Your task to perform on an android device: Open eBay Image 0: 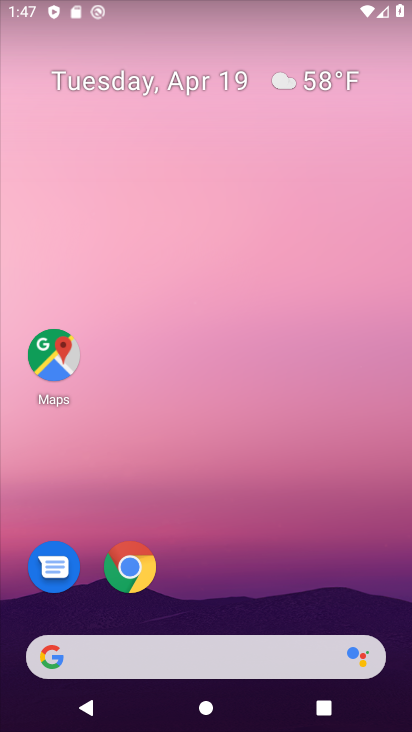
Step 0: click (133, 570)
Your task to perform on an android device: Open eBay Image 1: 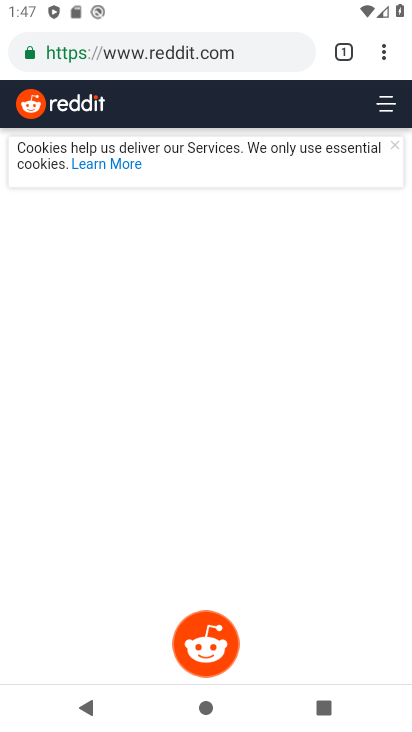
Step 1: click (157, 54)
Your task to perform on an android device: Open eBay Image 2: 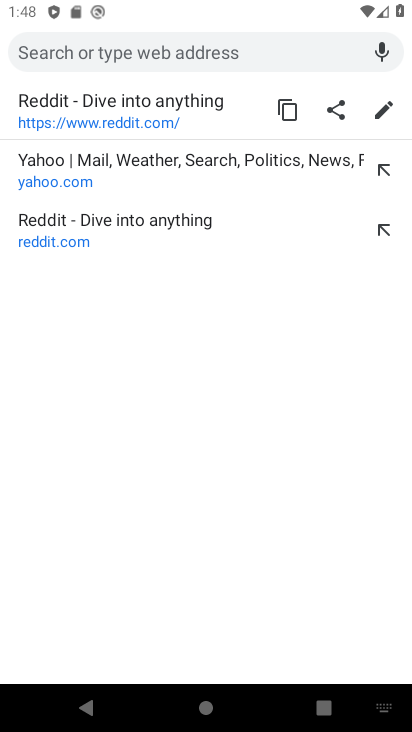
Step 2: type "ebay"
Your task to perform on an android device: Open eBay Image 3: 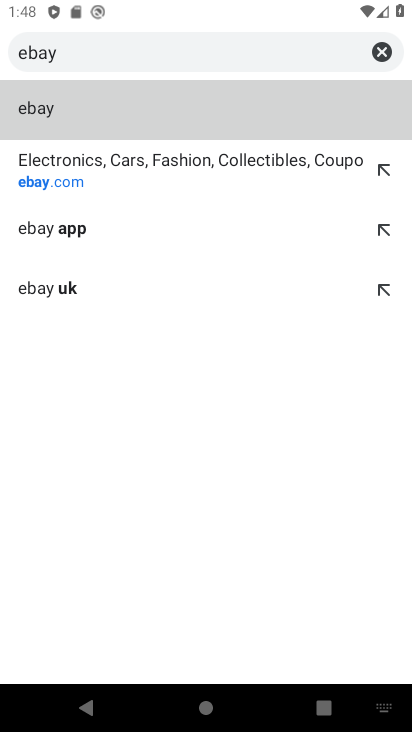
Step 3: click (54, 161)
Your task to perform on an android device: Open eBay Image 4: 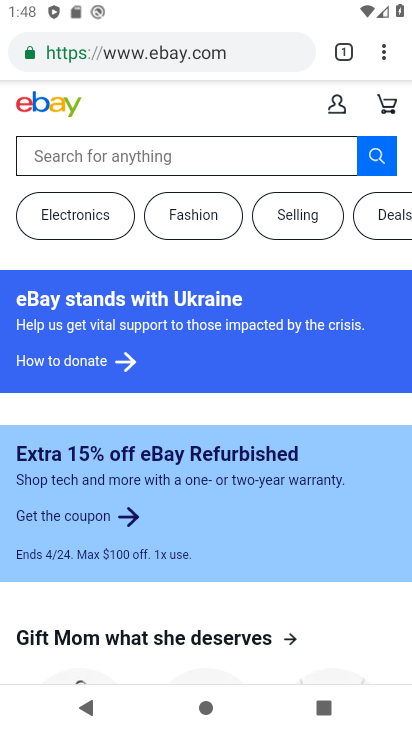
Step 4: task complete